Your task to perform on an android device: open chrome and create a bookmark for the current page Image 0: 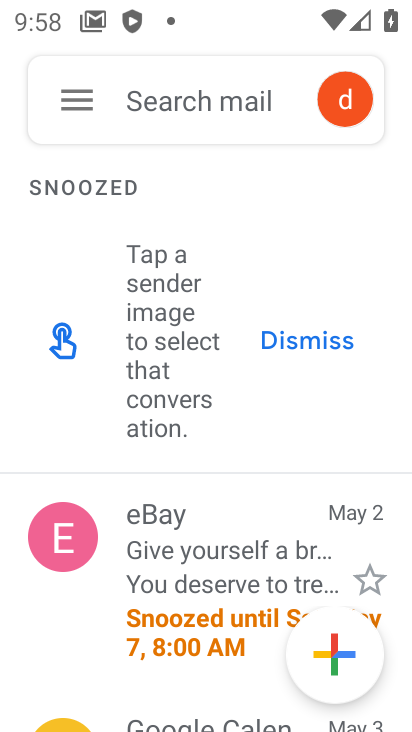
Step 0: press home button
Your task to perform on an android device: open chrome and create a bookmark for the current page Image 1: 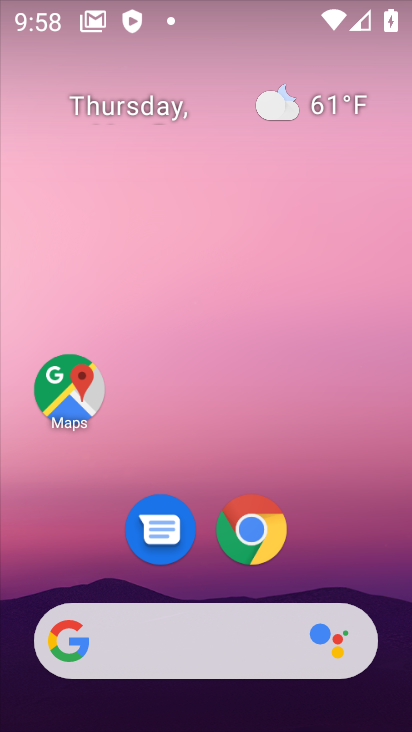
Step 1: click (383, 158)
Your task to perform on an android device: open chrome and create a bookmark for the current page Image 2: 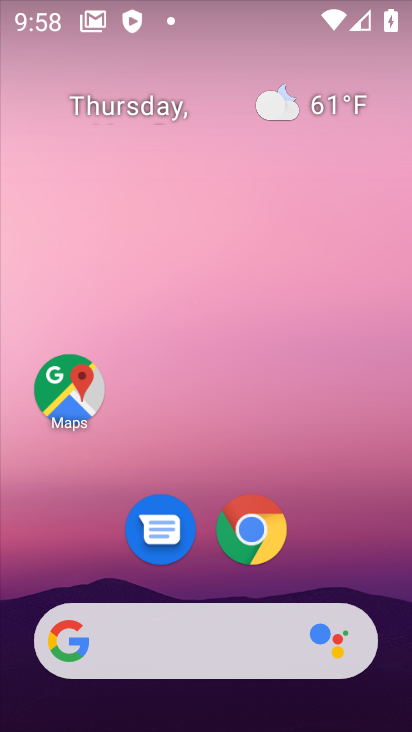
Step 2: click (254, 527)
Your task to perform on an android device: open chrome and create a bookmark for the current page Image 3: 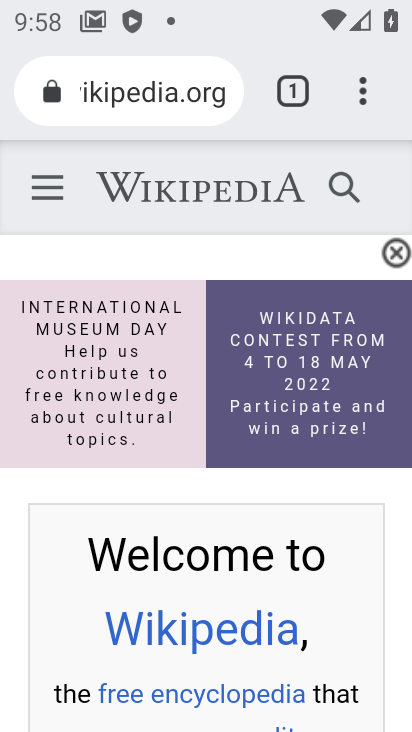
Step 3: click (359, 89)
Your task to perform on an android device: open chrome and create a bookmark for the current page Image 4: 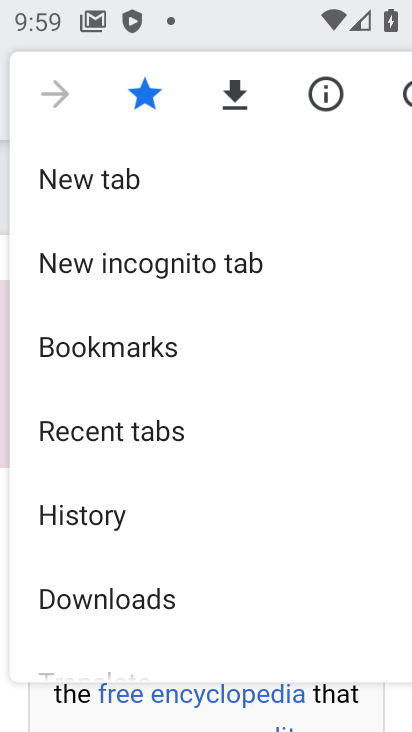
Step 4: task complete